Your task to perform on an android device: Set the phone to "Do not disturb". Image 0: 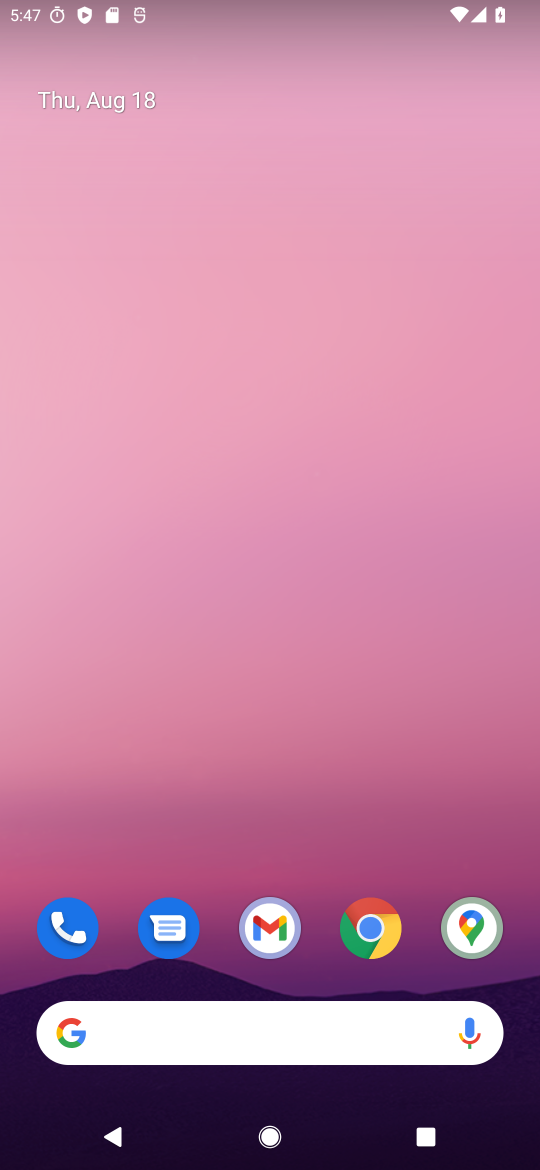
Step 0: drag from (311, 14) to (342, 789)
Your task to perform on an android device: Set the phone to "Do not disturb". Image 1: 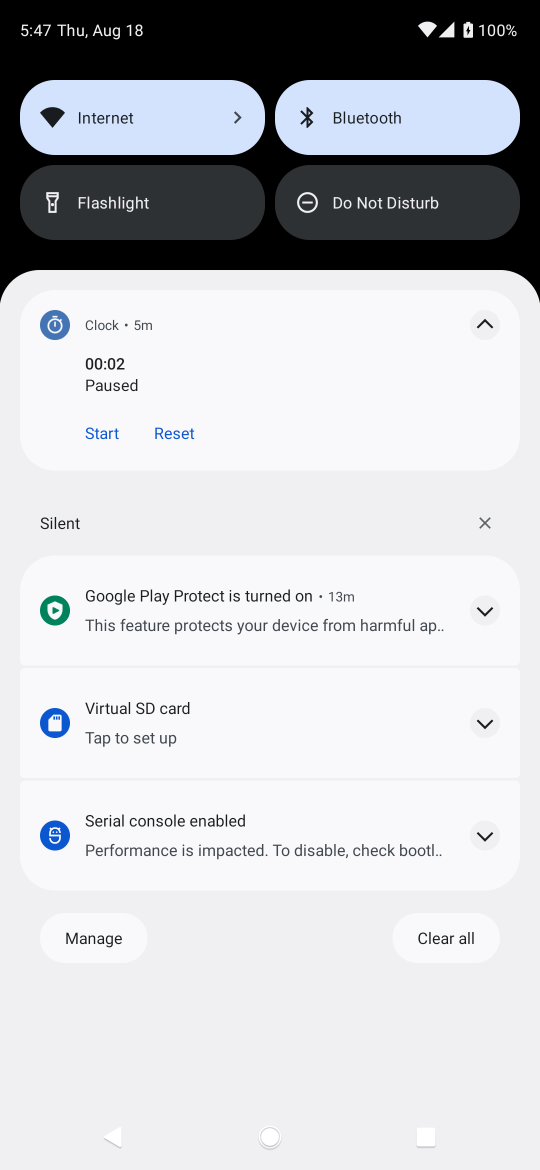
Step 1: click (399, 216)
Your task to perform on an android device: Set the phone to "Do not disturb". Image 2: 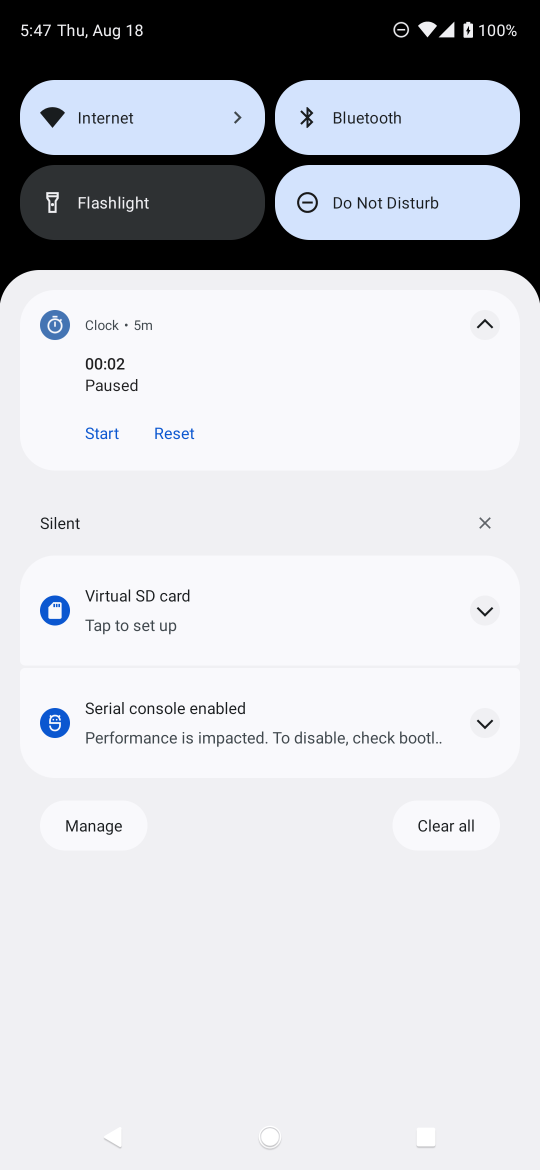
Step 2: task complete